Your task to perform on an android device: Open Yahoo.com Image 0: 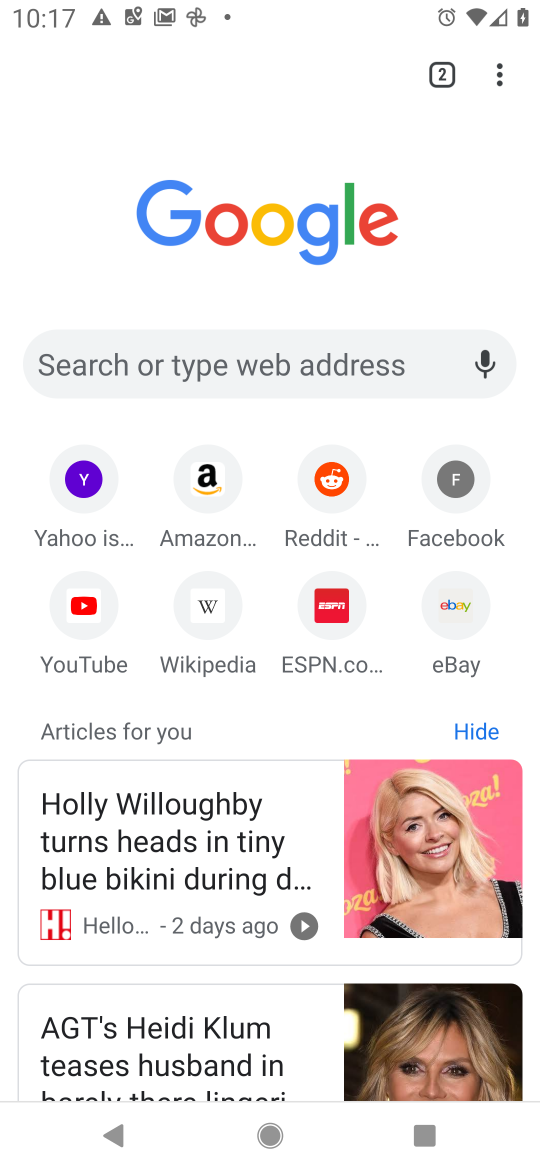
Step 0: press home button
Your task to perform on an android device: Open Yahoo.com Image 1: 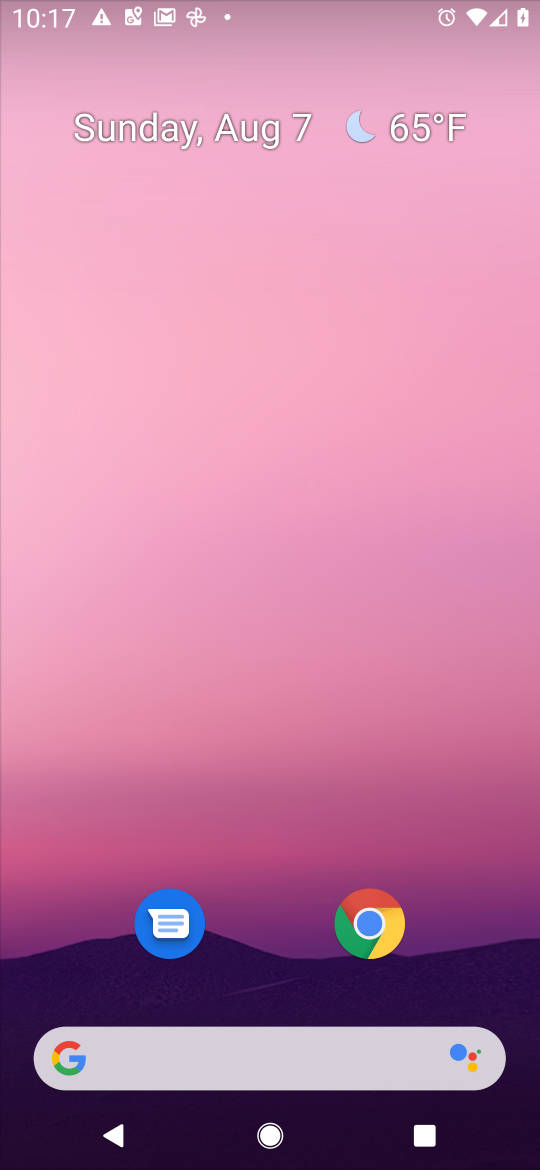
Step 1: drag from (517, 992) to (261, 6)
Your task to perform on an android device: Open Yahoo.com Image 2: 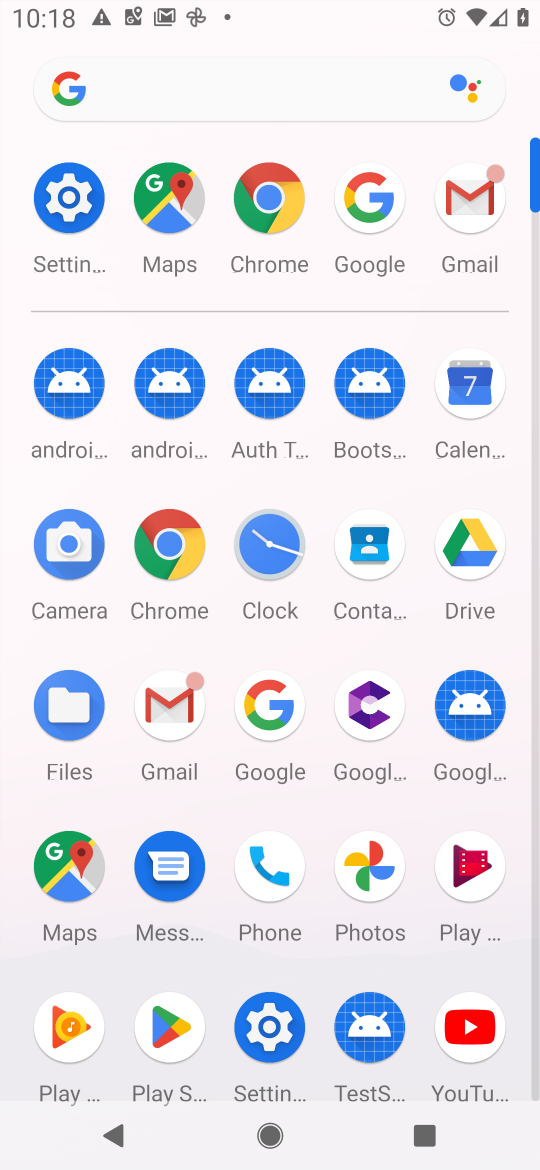
Step 2: click (274, 700)
Your task to perform on an android device: Open Yahoo.com Image 3: 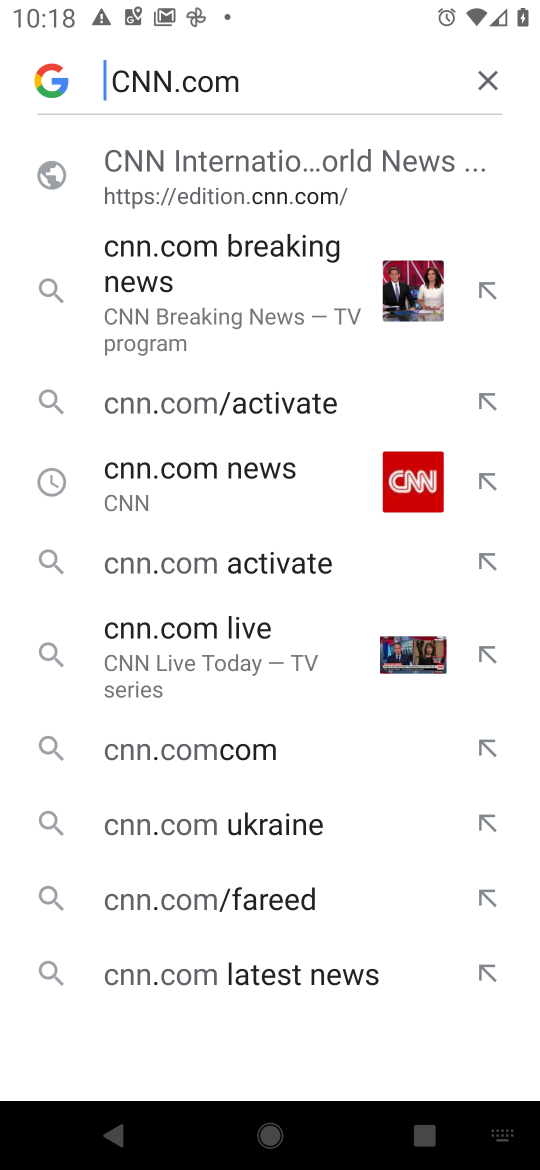
Step 3: click (493, 81)
Your task to perform on an android device: Open Yahoo.com Image 4: 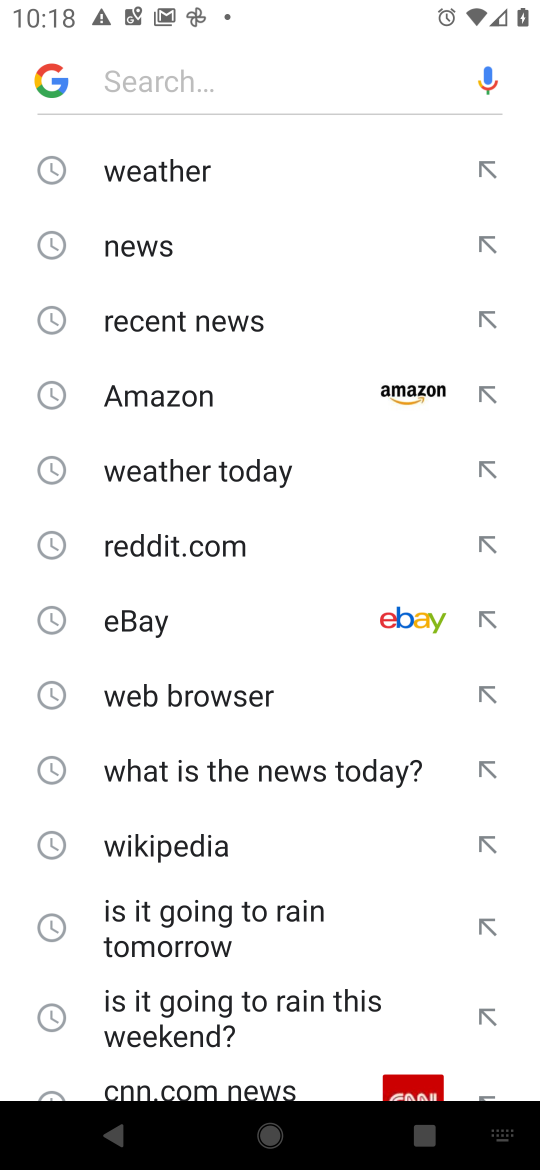
Step 4: type "Yahoo.com"
Your task to perform on an android device: Open Yahoo.com Image 5: 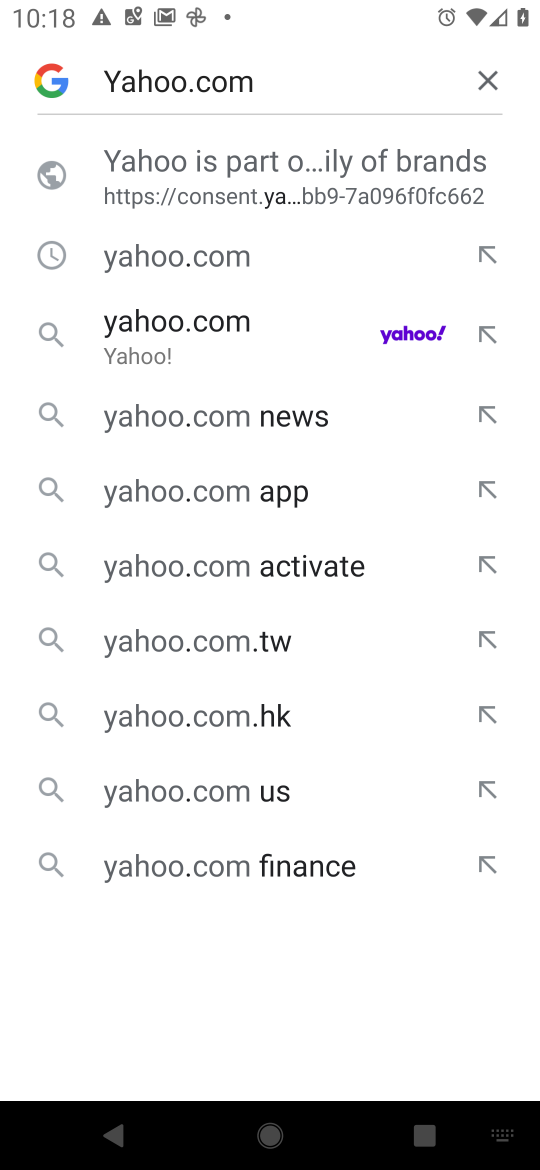
Step 5: click (185, 342)
Your task to perform on an android device: Open Yahoo.com Image 6: 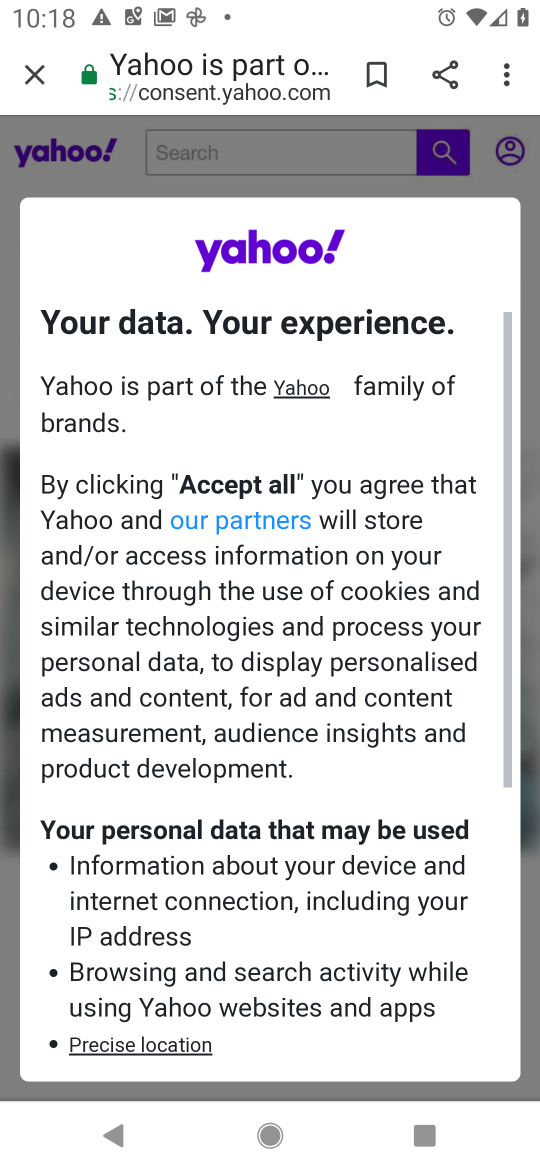
Step 6: task complete